Your task to perform on an android device: turn off sleep mode Image 0: 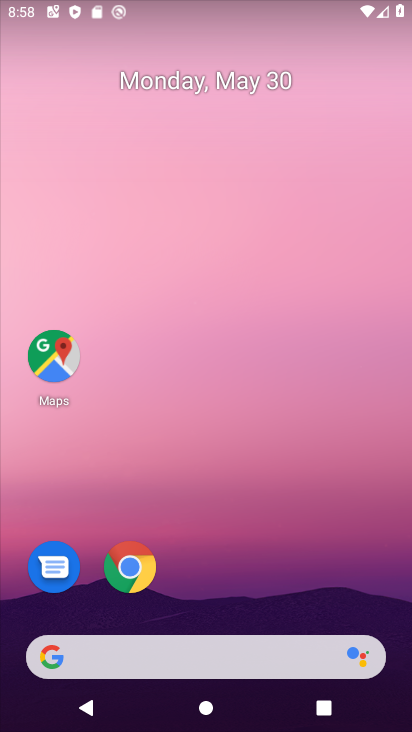
Step 0: drag from (269, 6) to (169, 684)
Your task to perform on an android device: turn off sleep mode Image 1: 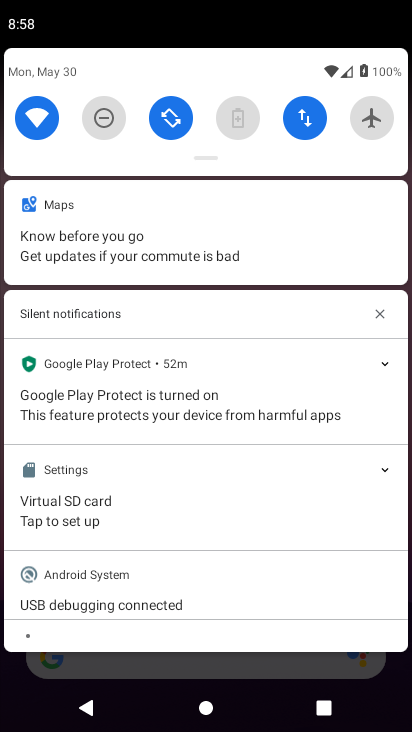
Step 1: drag from (272, 79) to (370, 493)
Your task to perform on an android device: turn off sleep mode Image 2: 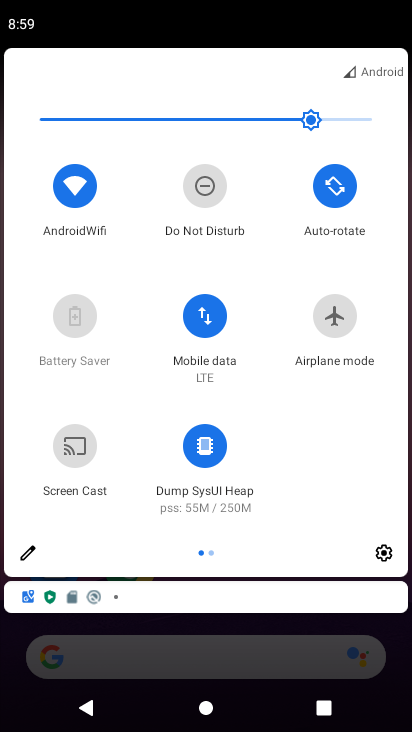
Step 2: click (392, 546)
Your task to perform on an android device: turn off sleep mode Image 3: 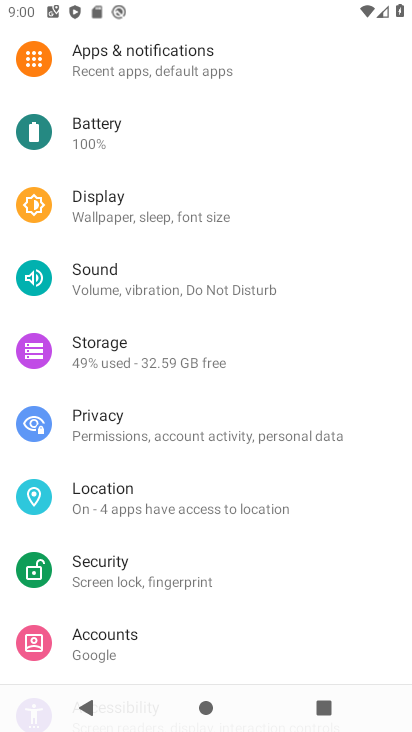
Step 3: task complete